Your task to perform on an android device: turn pop-ups off in chrome Image 0: 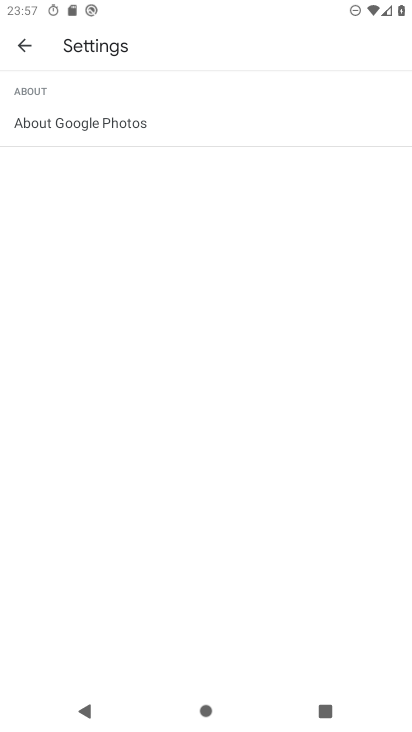
Step 0: press home button
Your task to perform on an android device: turn pop-ups off in chrome Image 1: 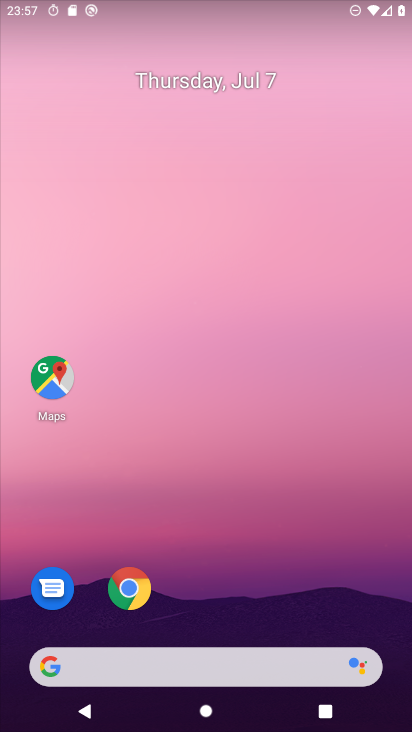
Step 1: drag from (313, 592) to (324, 83)
Your task to perform on an android device: turn pop-ups off in chrome Image 2: 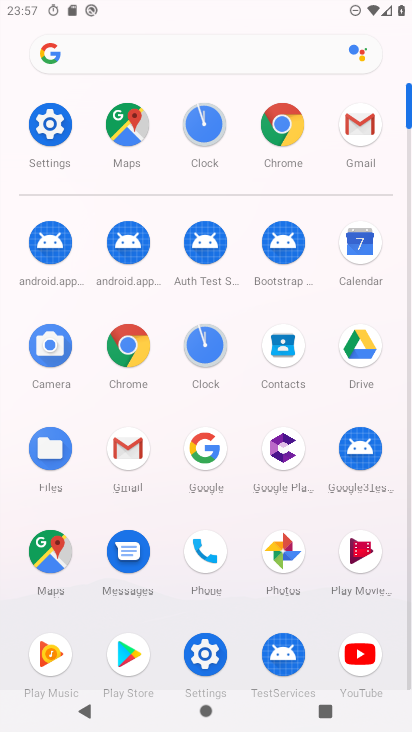
Step 2: click (280, 125)
Your task to perform on an android device: turn pop-ups off in chrome Image 3: 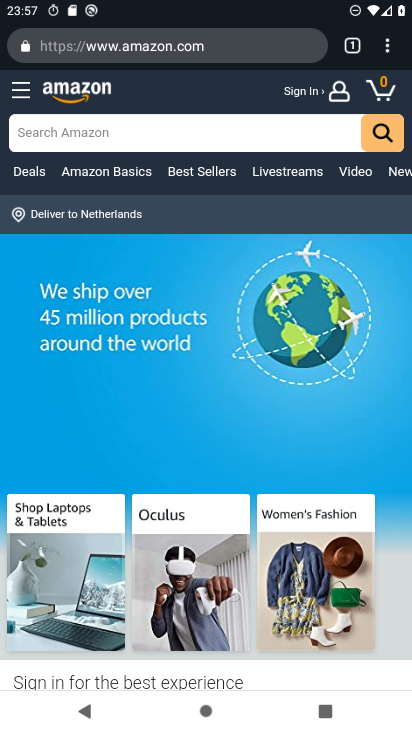
Step 3: drag from (388, 38) to (229, 544)
Your task to perform on an android device: turn pop-ups off in chrome Image 4: 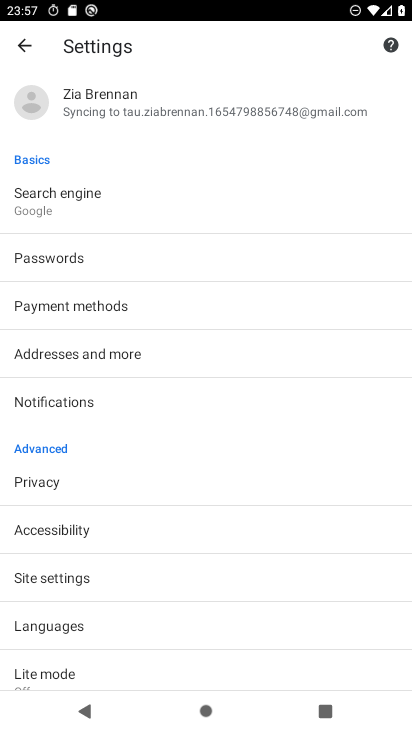
Step 4: click (64, 577)
Your task to perform on an android device: turn pop-ups off in chrome Image 5: 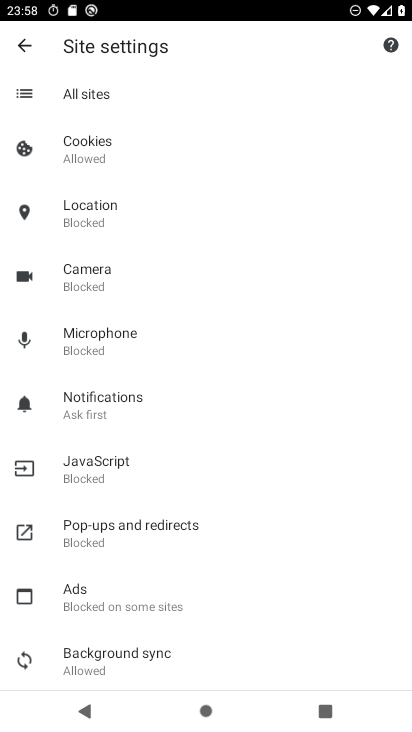
Step 5: click (130, 539)
Your task to perform on an android device: turn pop-ups off in chrome Image 6: 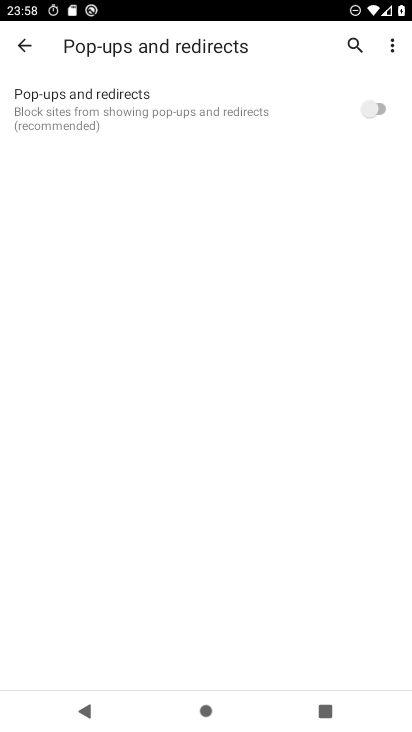
Step 6: task complete